Your task to perform on an android device: move an email to a new category in the gmail app Image 0: 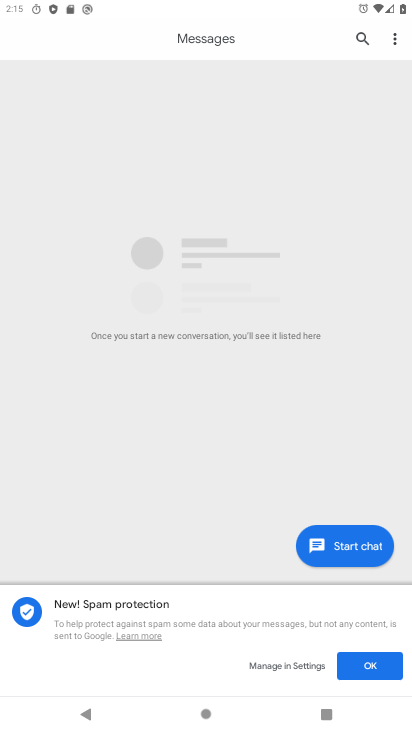
Step 0: press home button
Your task to perform on an android device: move an email to a new category in the gmail app Image 1: 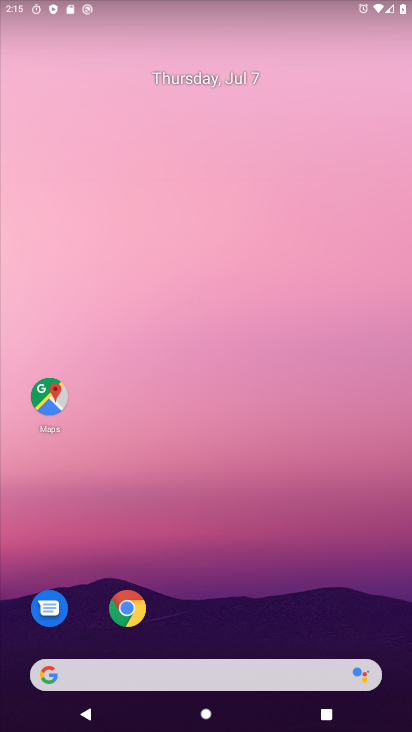
Step 1: drag from (239, 717) to (236, 209)
Your task to perform on an android device: move an email to a new category in the gmail app Image 2: 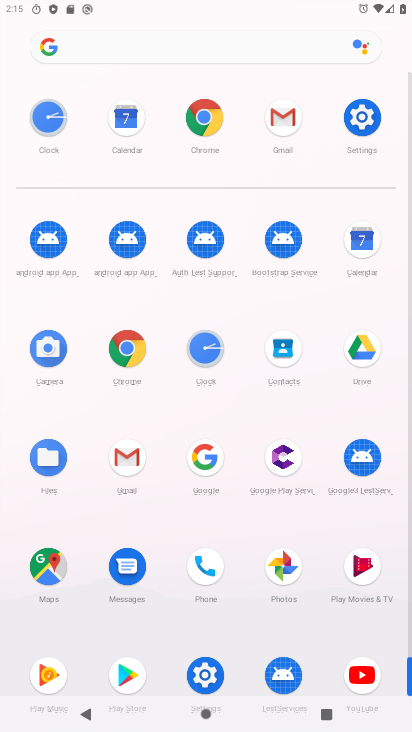
Step 2: click (125, 459)
Your task to perform on an android device: move an email to a new category in the gmail app Image 3: 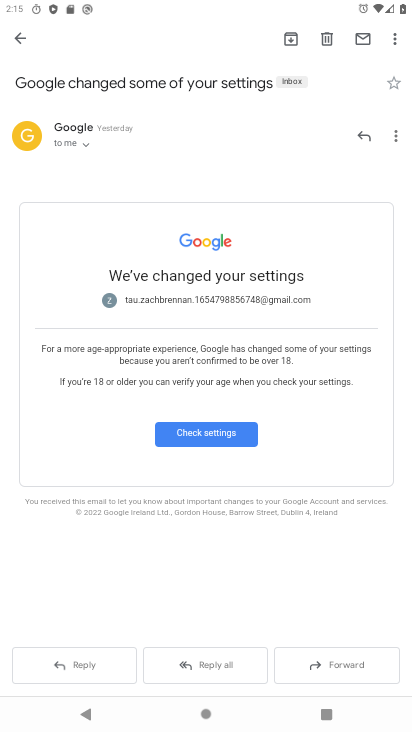
Step 3: click (395, 137)
Your task to perform on an android device: move an email to a new category in the gmail app Image 4: 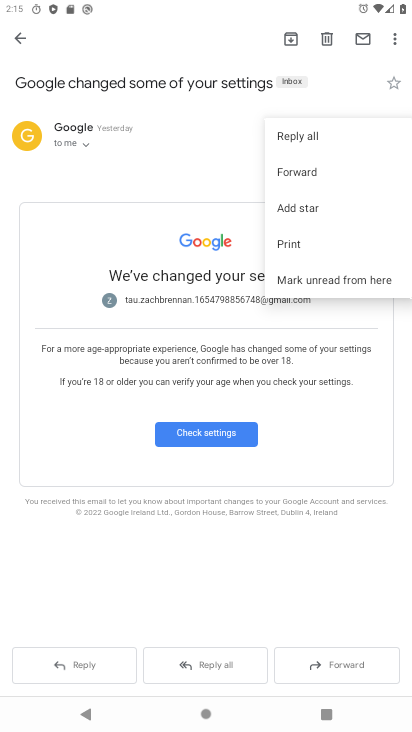
Step 4: click (139, 149)
Your task to perform on an android device: move an email to a new category in the gmail app Image 5: 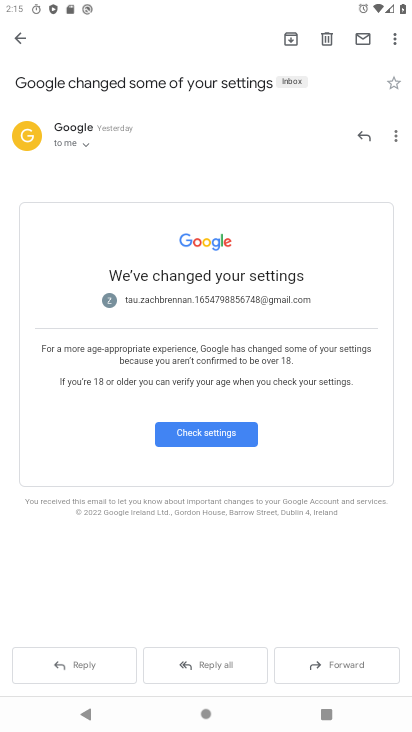
Step 5: click (20, 38)
Your task to perform on an android device: move an email to a new category in the gmail app Image 6: 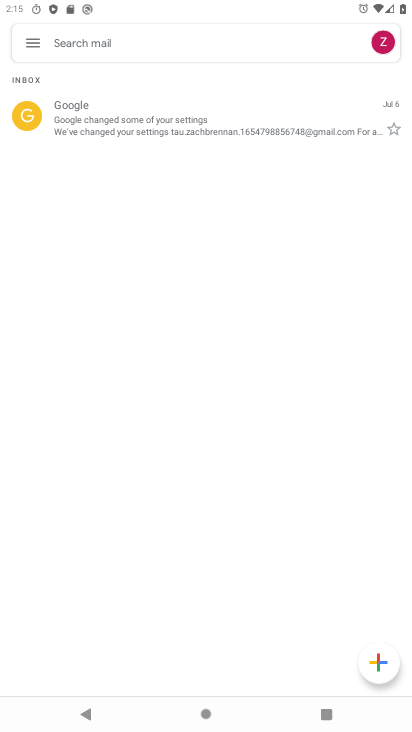
Step 6: click (295, 118)
Your task to perform on an android device: move an email to a new category in the gmail app Image 7: 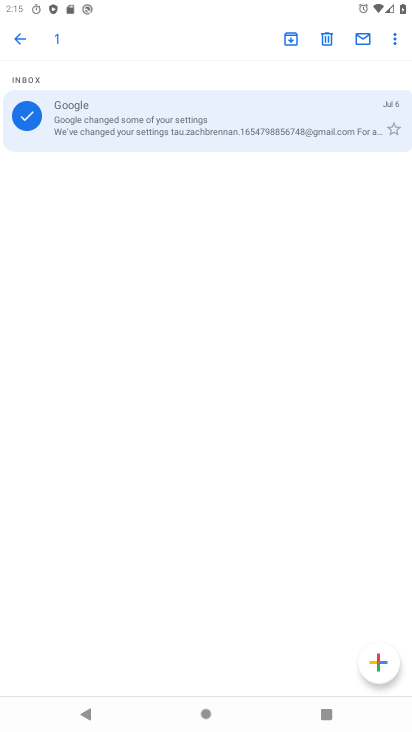
Step 7: click (395, 40)
Your task to perform on an android device: move an email to a new category in the gmail app Image 8: 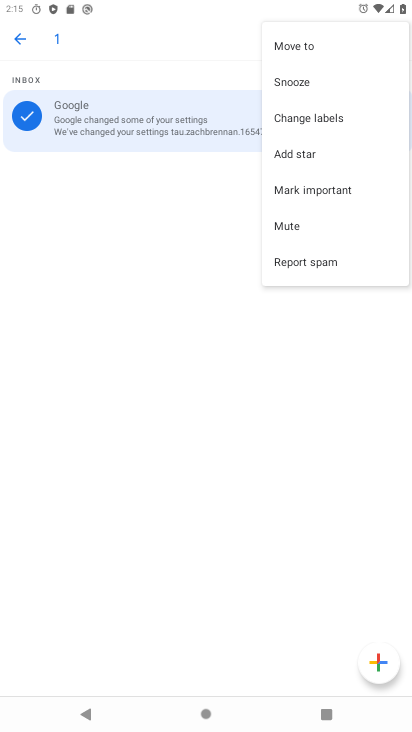
Step 8: click (306, 46)
Your task to perform on an android device: move an email to a new category in the gmail app Image 9: 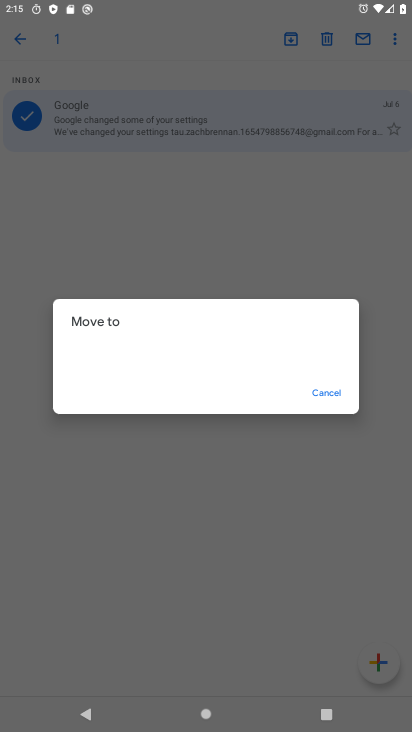
Step 9: task complete